Your task to perform on an android device: manage bookmarks in the chrome app Image 0: 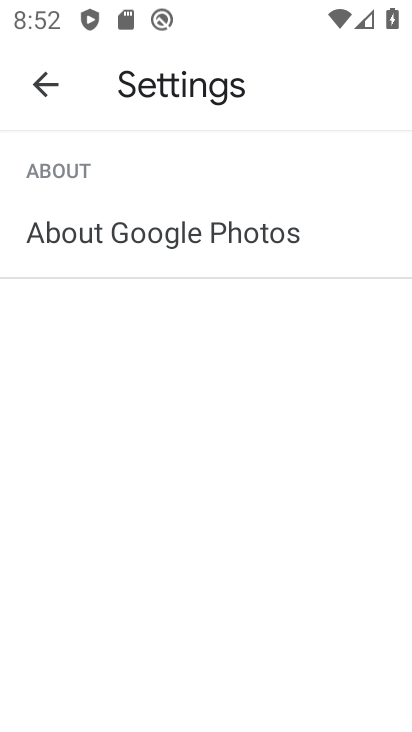
Step 0: press home button
Your task to perform on an android device: manage bookmarks in the chrome app Image 1: 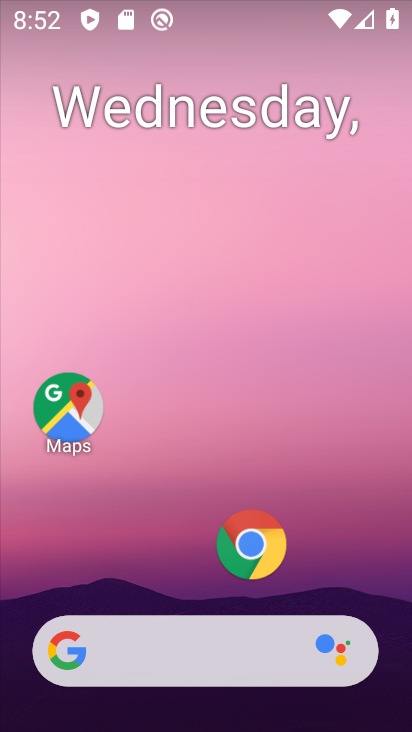
Step 1: click (253, 546)
Your task to perform on an android device: manage bookmarks in the chrome app Image 2: 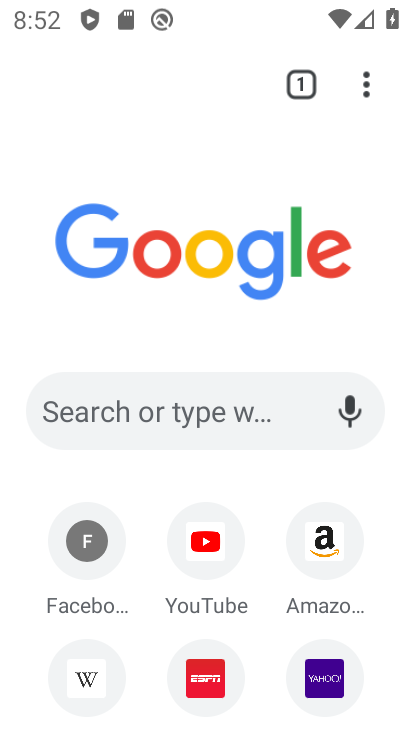
Step 2: click (371, 101)
Your task to perform on an android device: manage bookmarks in the chrome app Image 3: 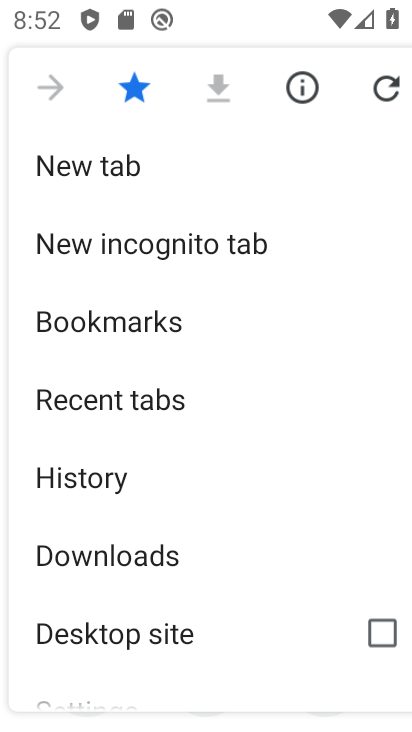
Step 3: click (77, 316)
Your task to perform on an android device: manage bookmarks in the chrome app Image 4: 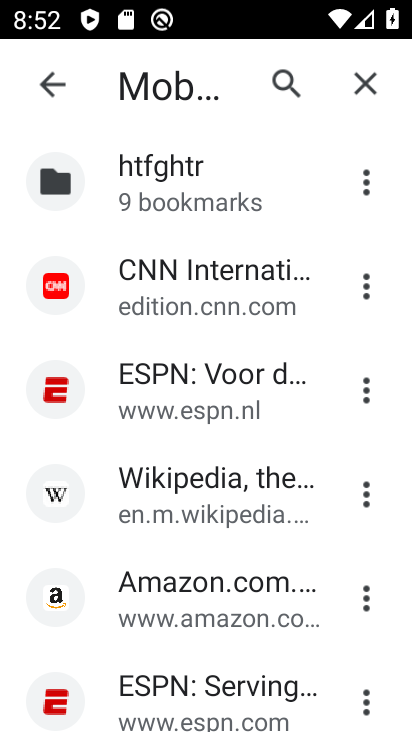
Step 4: click (371, 281)
Your task to perform on an android device: manage bookmarks in the chrome app Image 5: 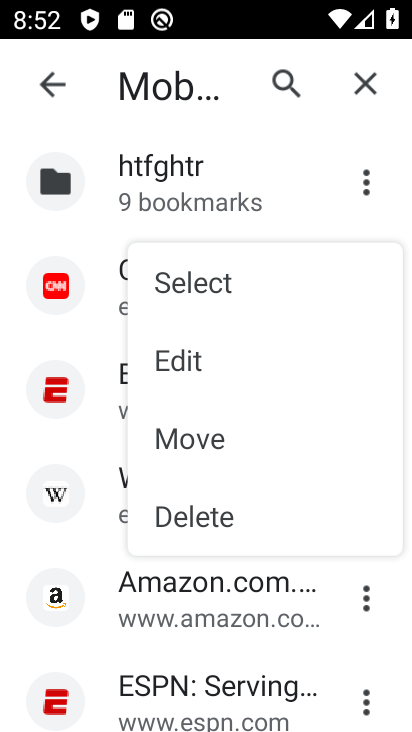
Step 5: click (194, 368)
Your task to perform on an android device: manage bookmarks in the chrome app Image 6: 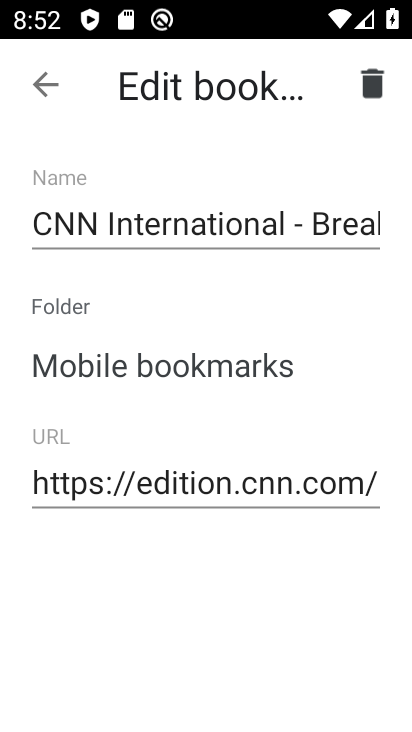
Step 6: click (382, 86)
Your task to perform on an android device: manage bookmarks in the chrome app Image 7: 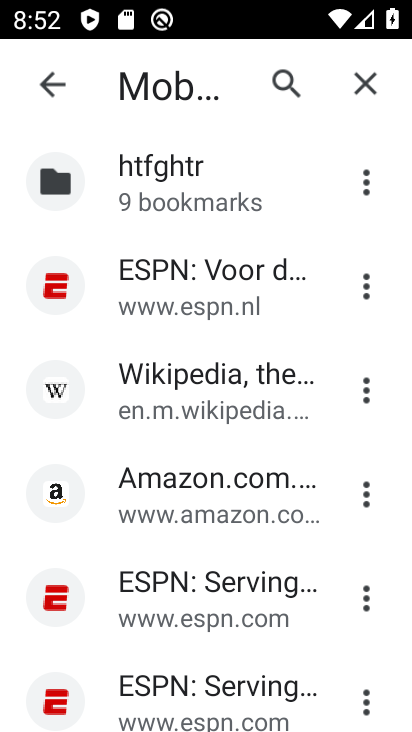
Step 7: task complete